Your task to perform on an android device: see sites visited before in the chrome app Image 0: 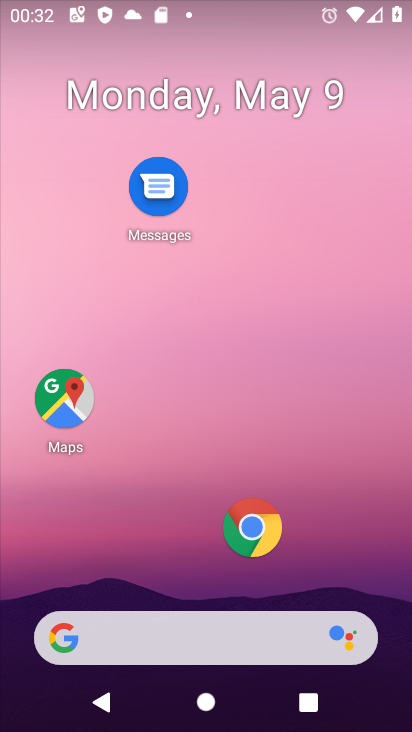
Step 0: drag from (195, 547) to (239, 102)
Your task to perform on an android device: see sites visited before in the chrome app Image 1: 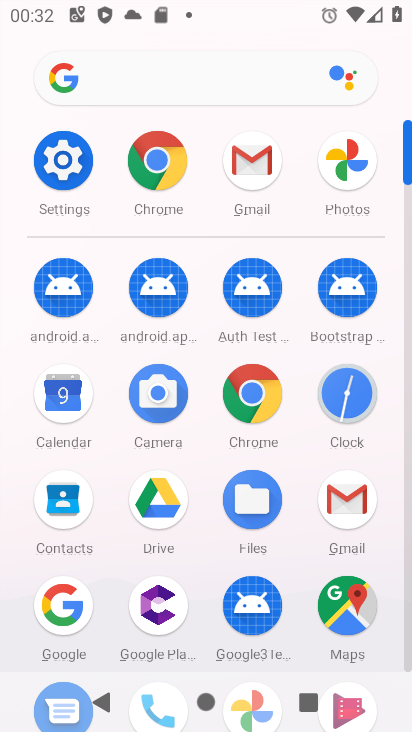
Step 1: click (252, 392)
Your task to perform on an android device: see sites visited before in the chrome app Image 2: 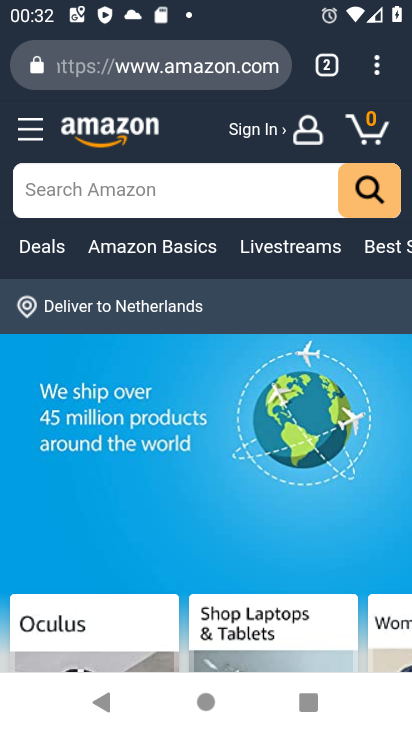
Step 2: click (364, 67)
Your task to perform on an android device: see sites visited before in the chrome app Image 3: 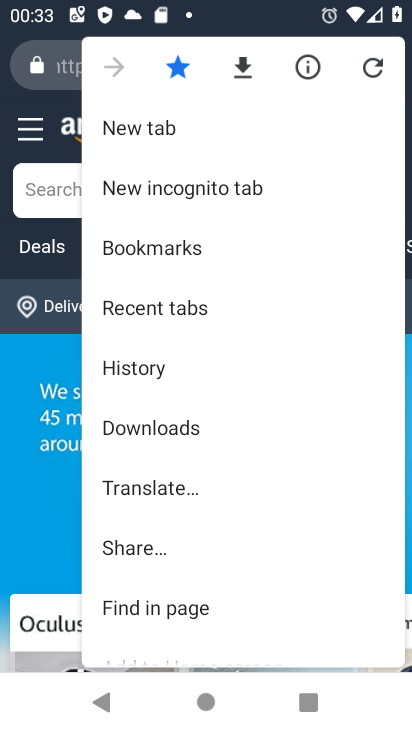
Step 3: drag from (176, 535) to (237, 188)
Your task to perform on an android device: see sites visited before in the chrome app Image 4: 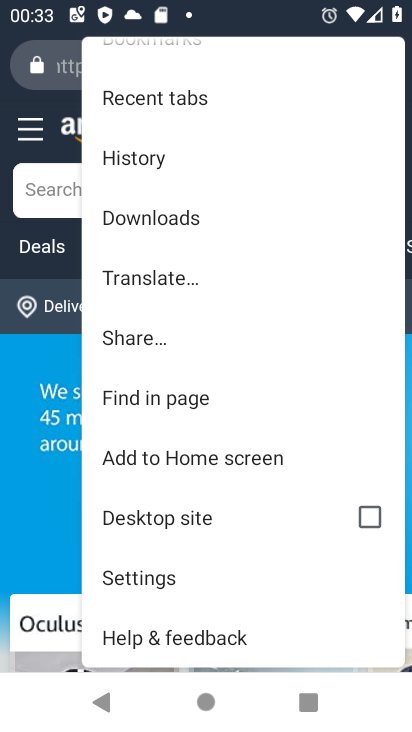
Step 4: drag from (192, 281) to (176, 490)
Your task to perform on an android device: see sites visited before in the chrome app Image 5: 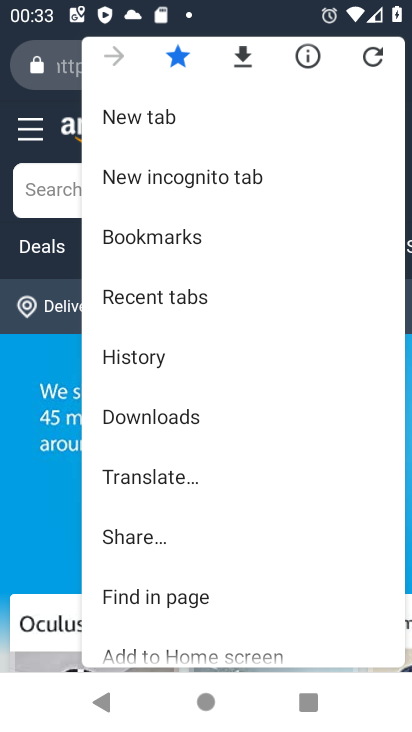
Step 5: click (174, 364)
Your task to perform on an android device: see sites visited before in the chrome app Image 6: 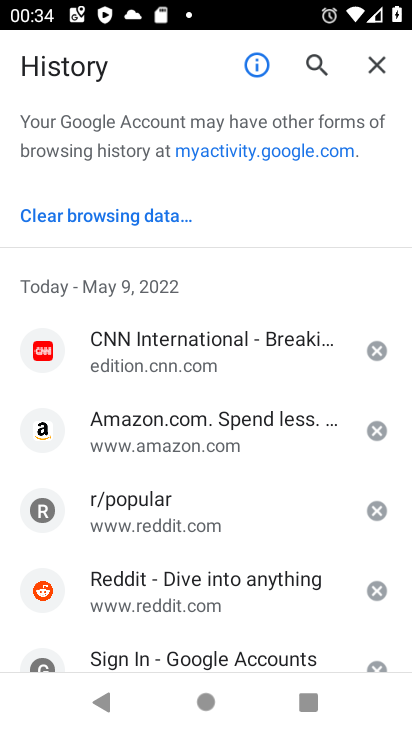
Step 6: task complete